Your task to perform on an android device: Add "logitech g910" to the cart on walmart.com Image 0: 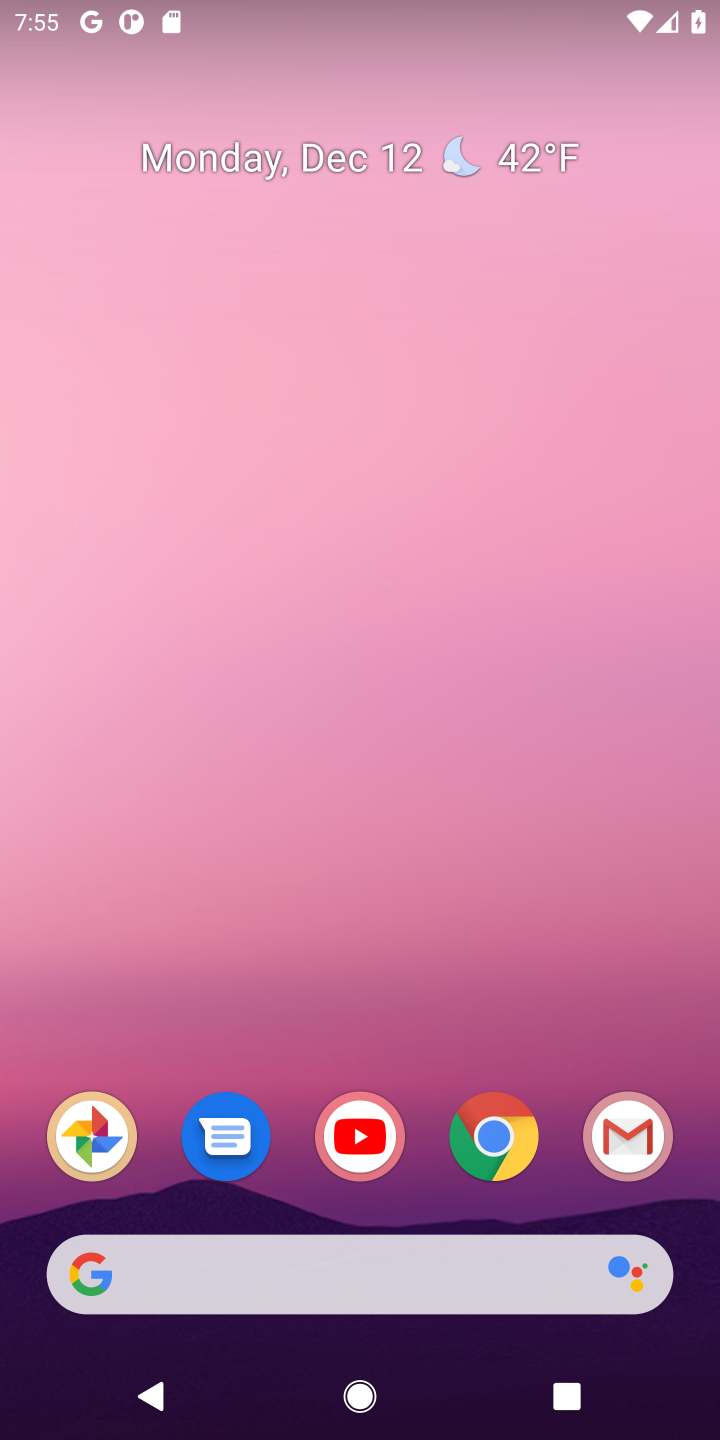
Step 0: click (488, 1150)
Your task to perform on an android device: Add "logitech g910" to the cart on walmart.com Image 1: 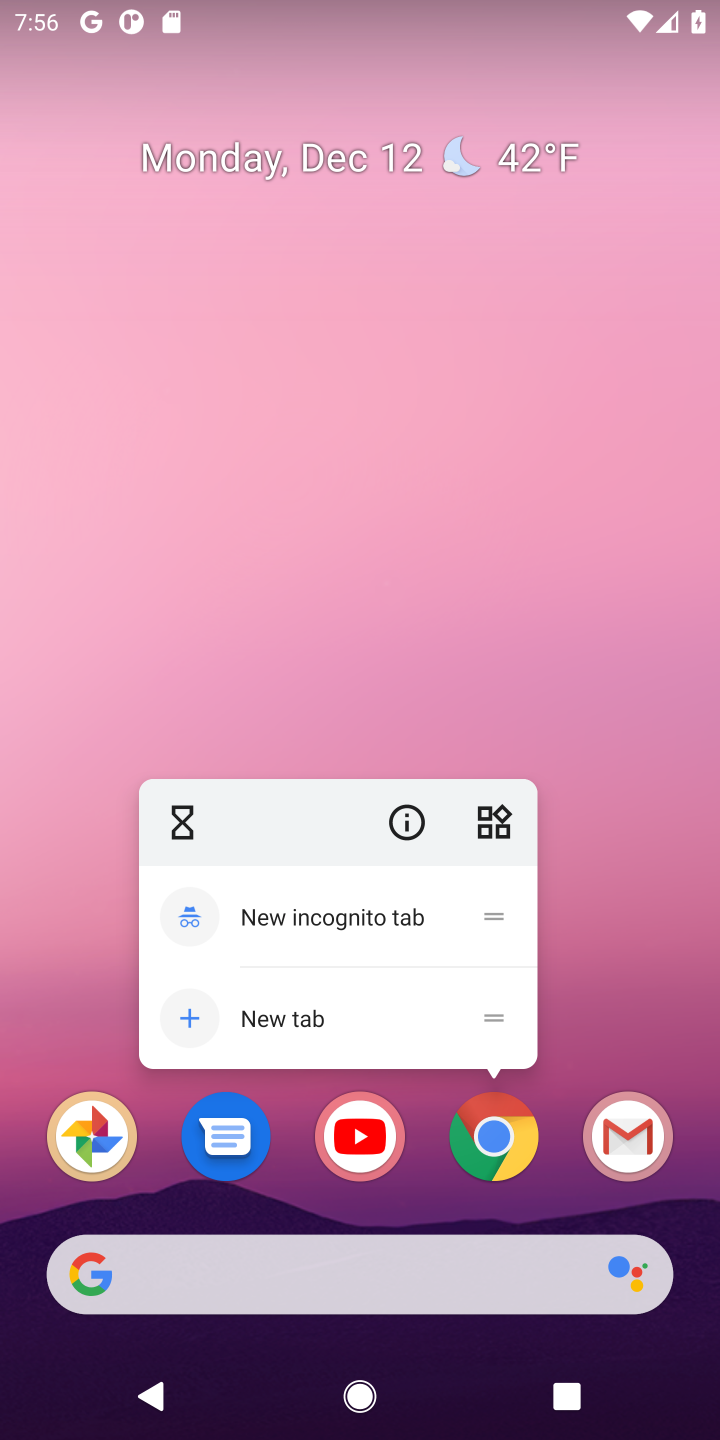
Step 1: click (498, 1138)
Your task to perform on an android device: Add "logitech g910" to the cart on walmart.com Image 2: 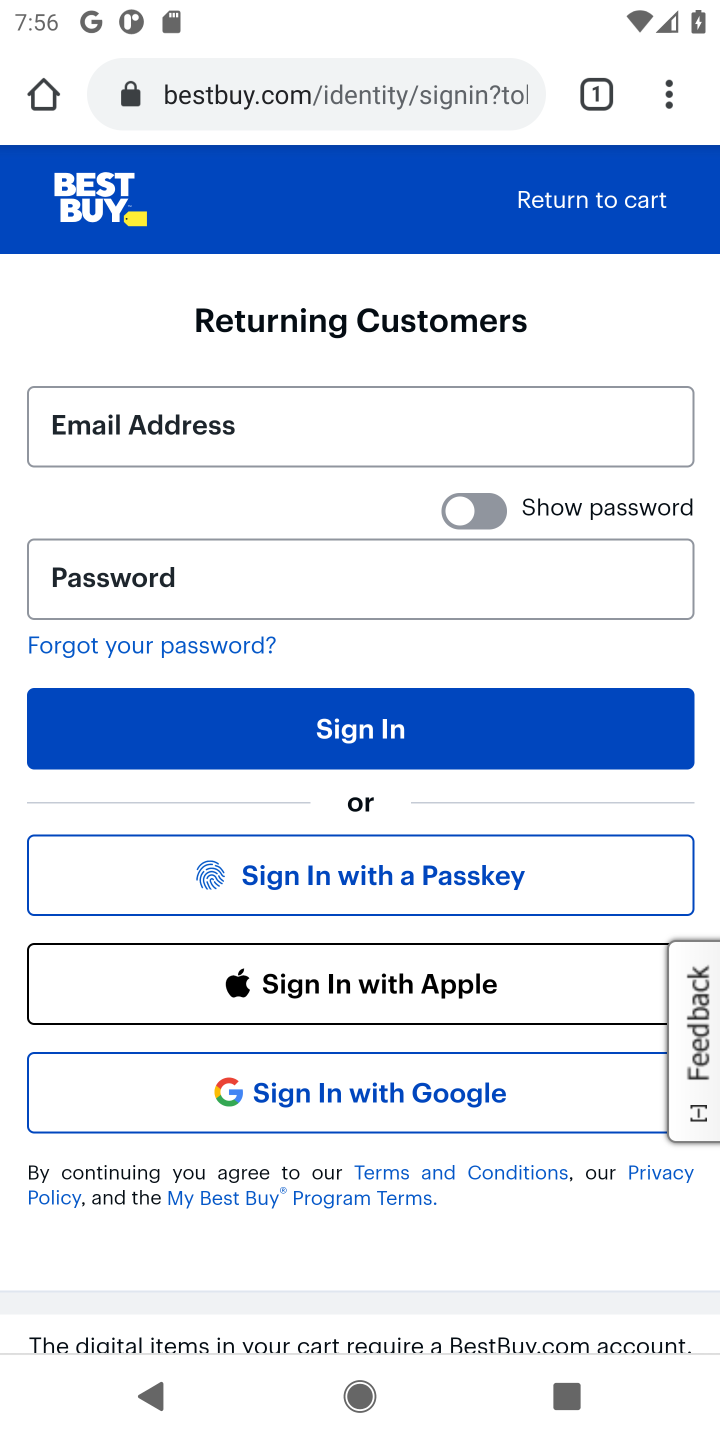
Step 2: click (291, 99)
Your task to perform on an android device: Add "logitech g910" to the cart on walmart.com Image 3: 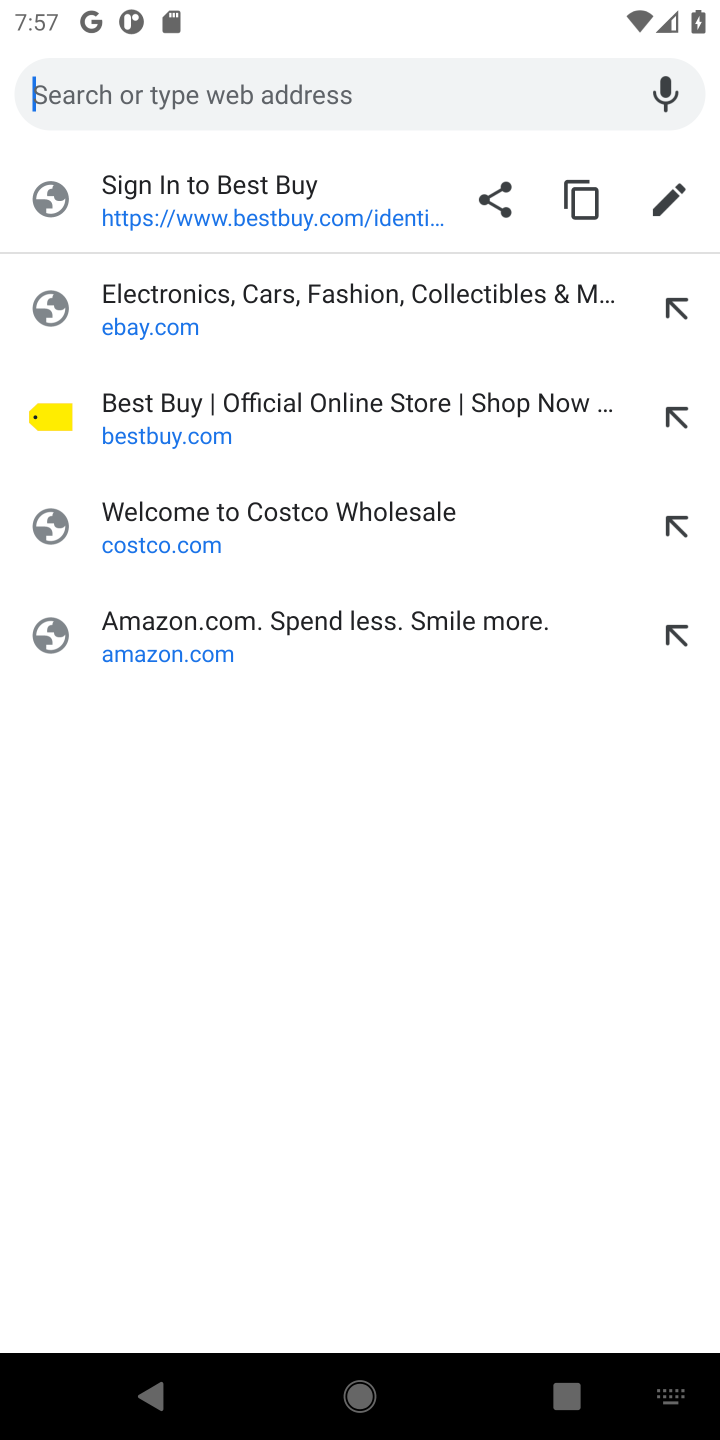
Step 3: type "walmart.com"
Your task to perform on an android device: Add "logitech g910" to the cart on walmart.com Image 4: 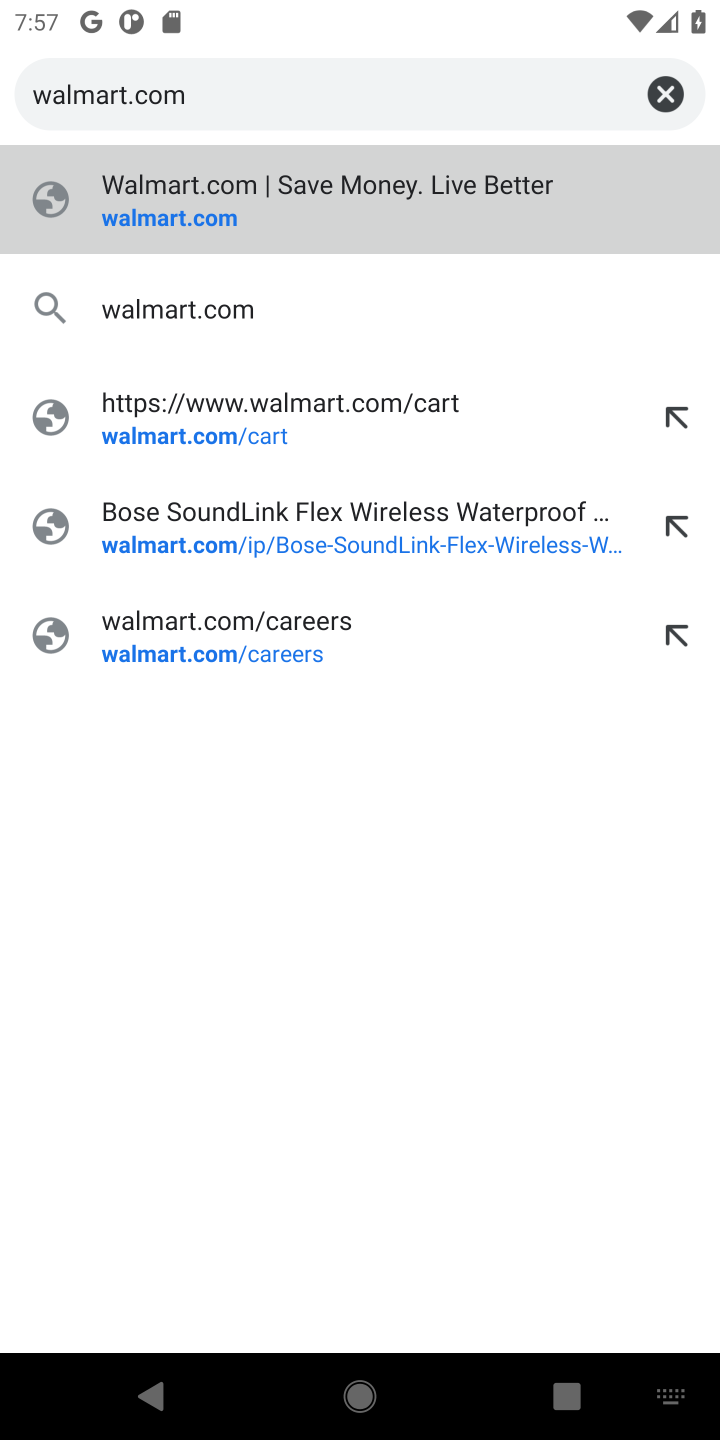
Step 4: click (151, 231)
Your task to perform on an android device: Add "logitech g910" to the cart on walmart.com Image 5: 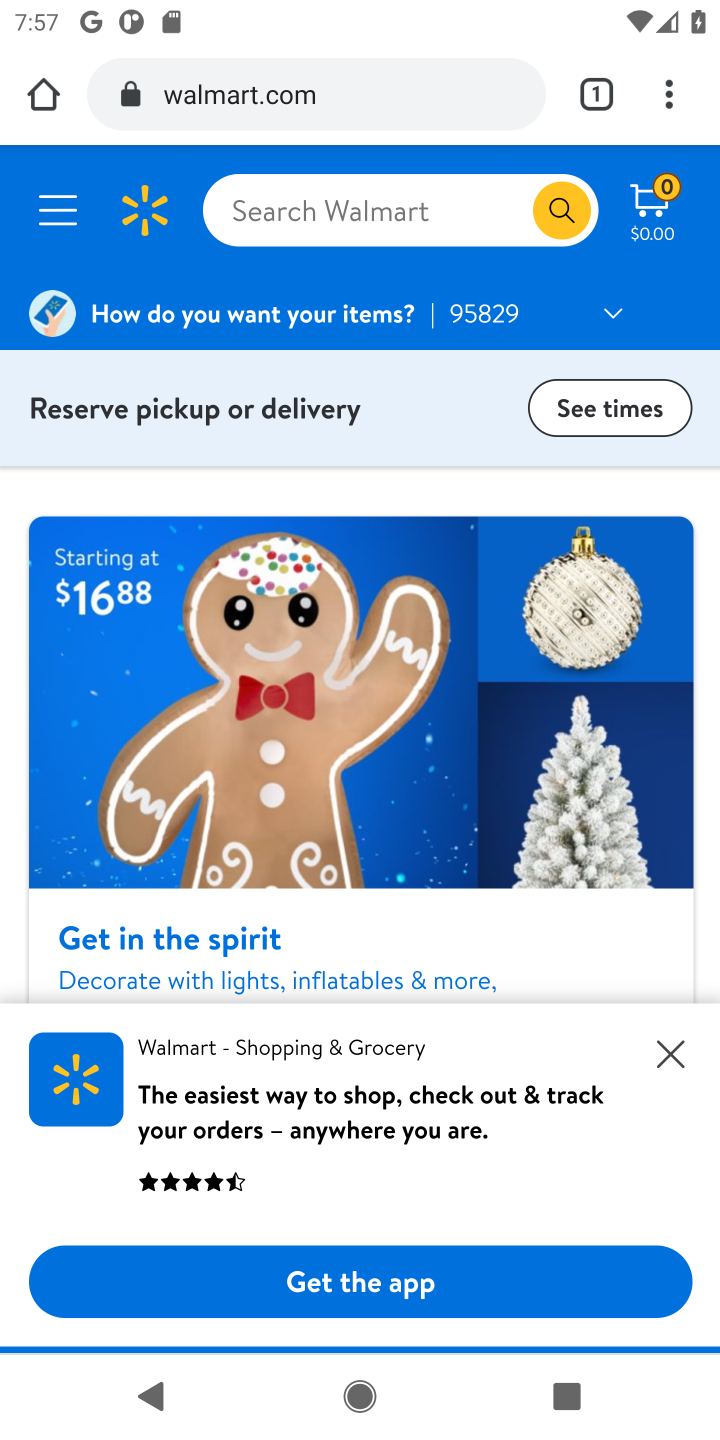
Step 5: click (302, 229)
Your task to perform on an android device: Add "logitech g910" to the cart on walmart.com Image 6: 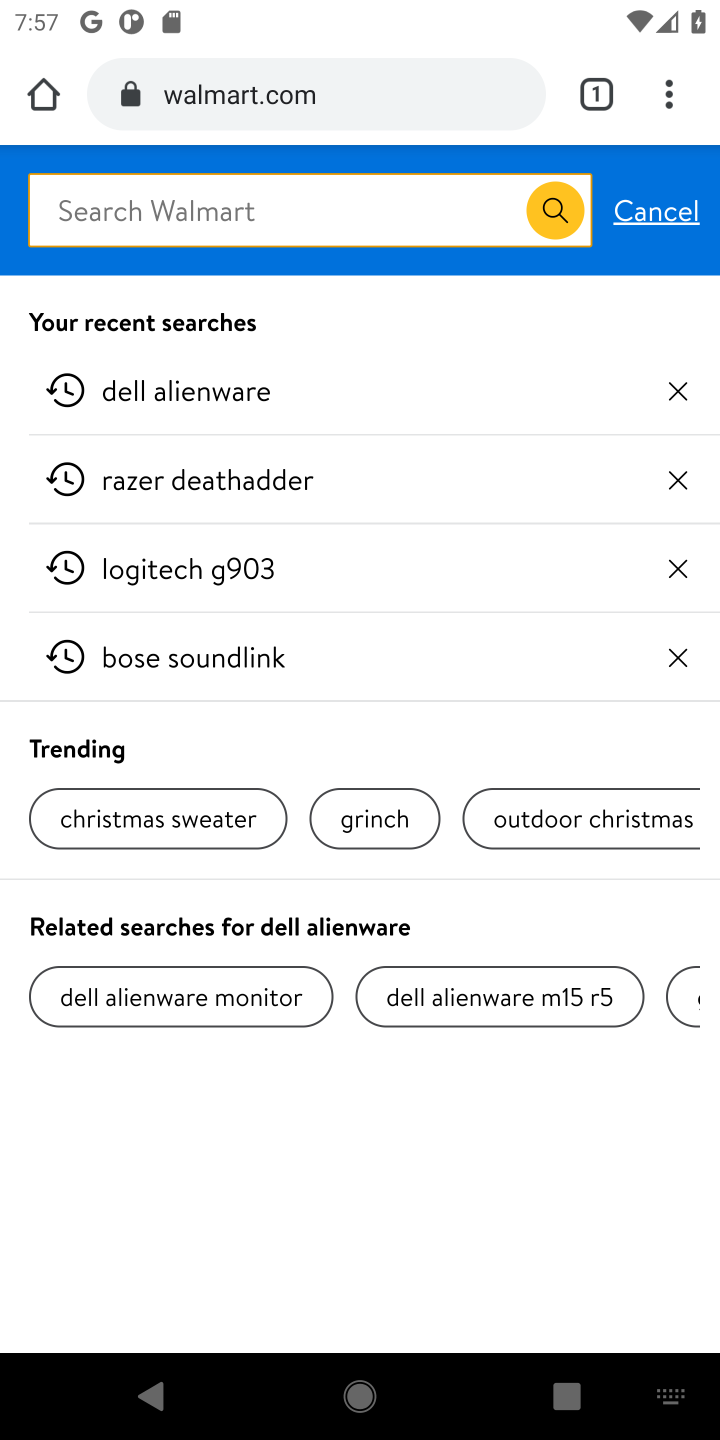
Step 6: type "logitech g910"
Your task to perform on an android device: Add "logitech g910" to the cart on walmart.com Image 7: 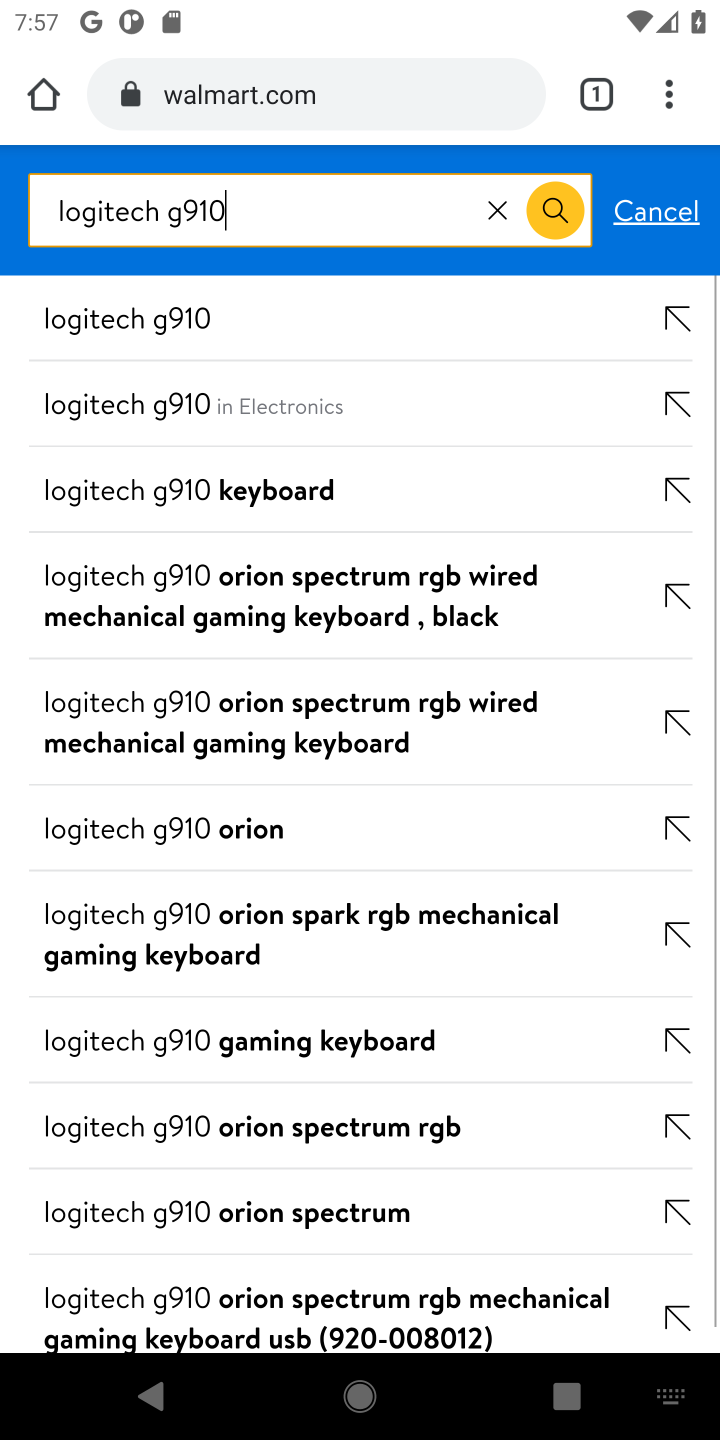
Step 7: click (102, 332)
Your task to perform on an android device: Add "logitech g910" to the cart on walmart.com Image 8: 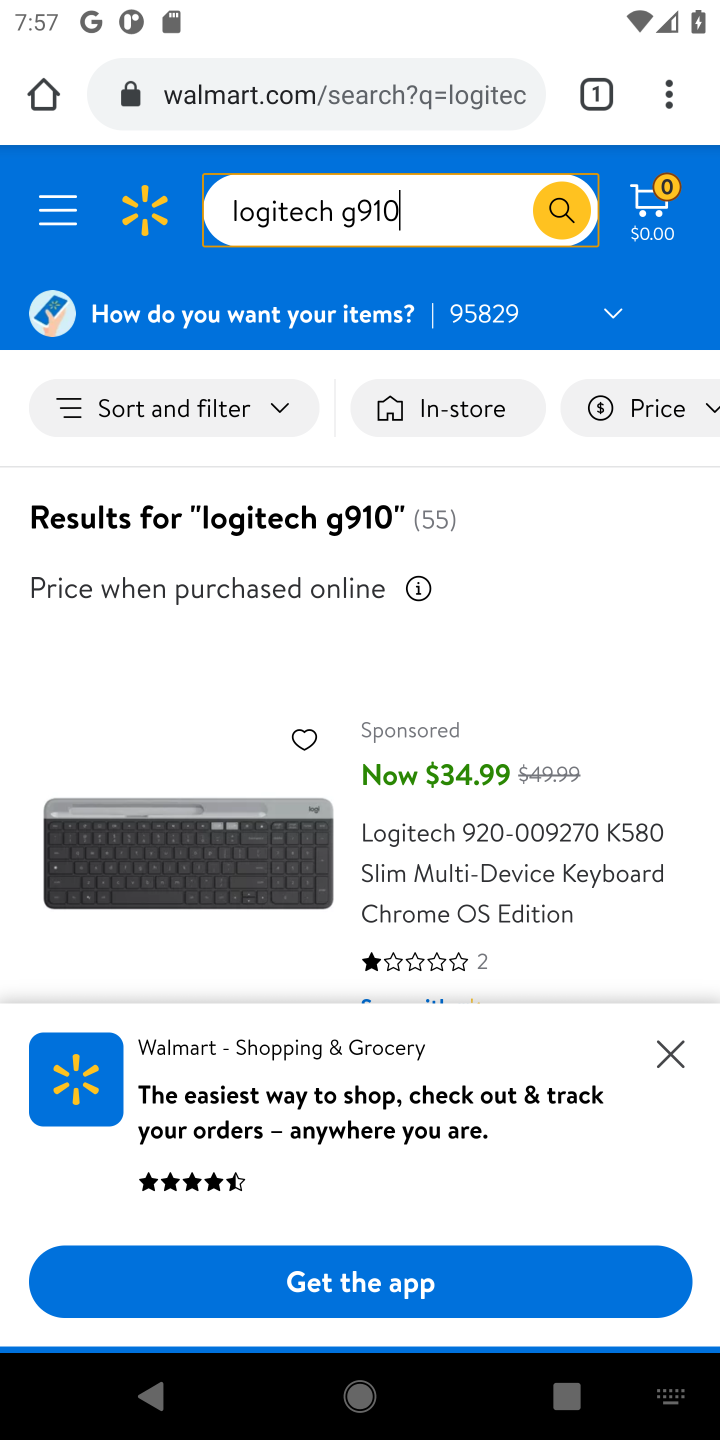
Step 8: drag from (403, 873) to (414, 380)
Your task to perform on an android device: Add "logitech g910" to the cart on walmart.com Image 9: 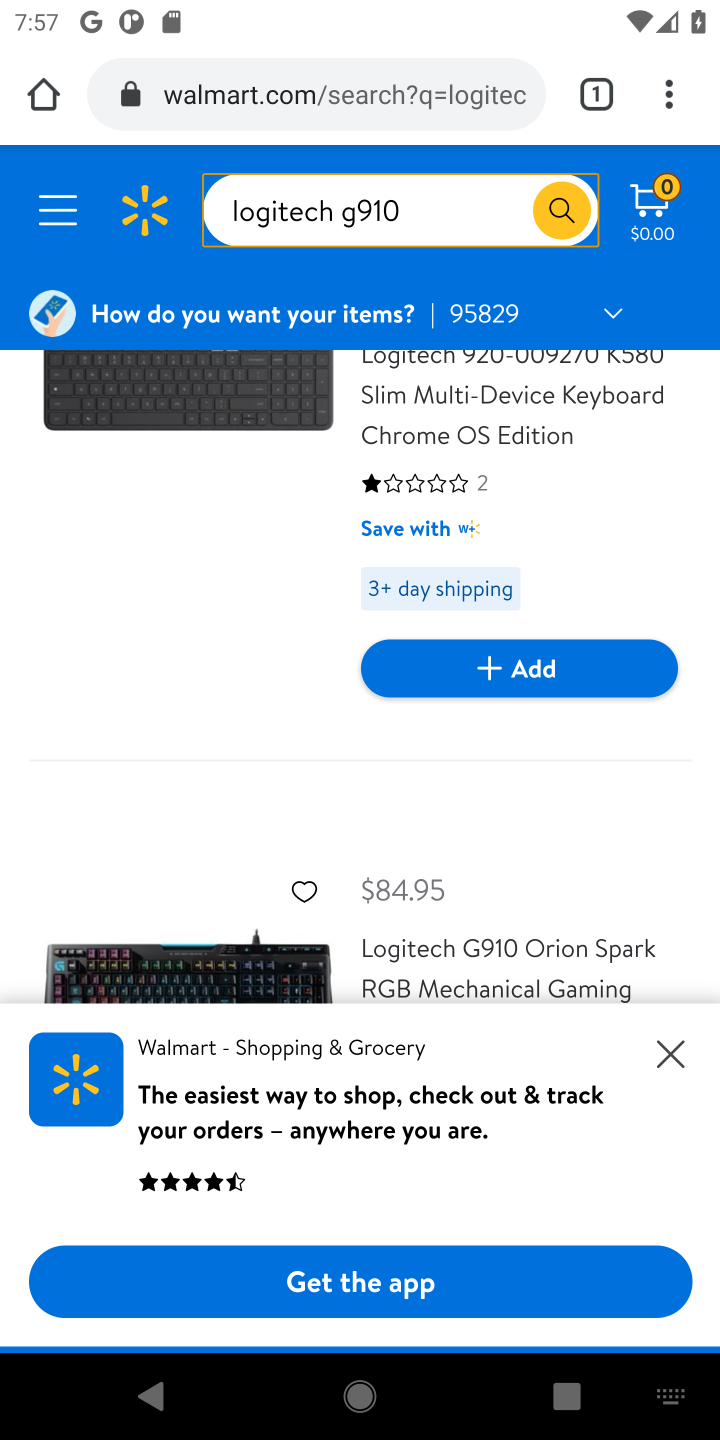
Step 9: drag from (338, 840) to (370, 447)
Your task to perform on an android device: Add "logitech g910" to the cart on walmart.com Image 10: 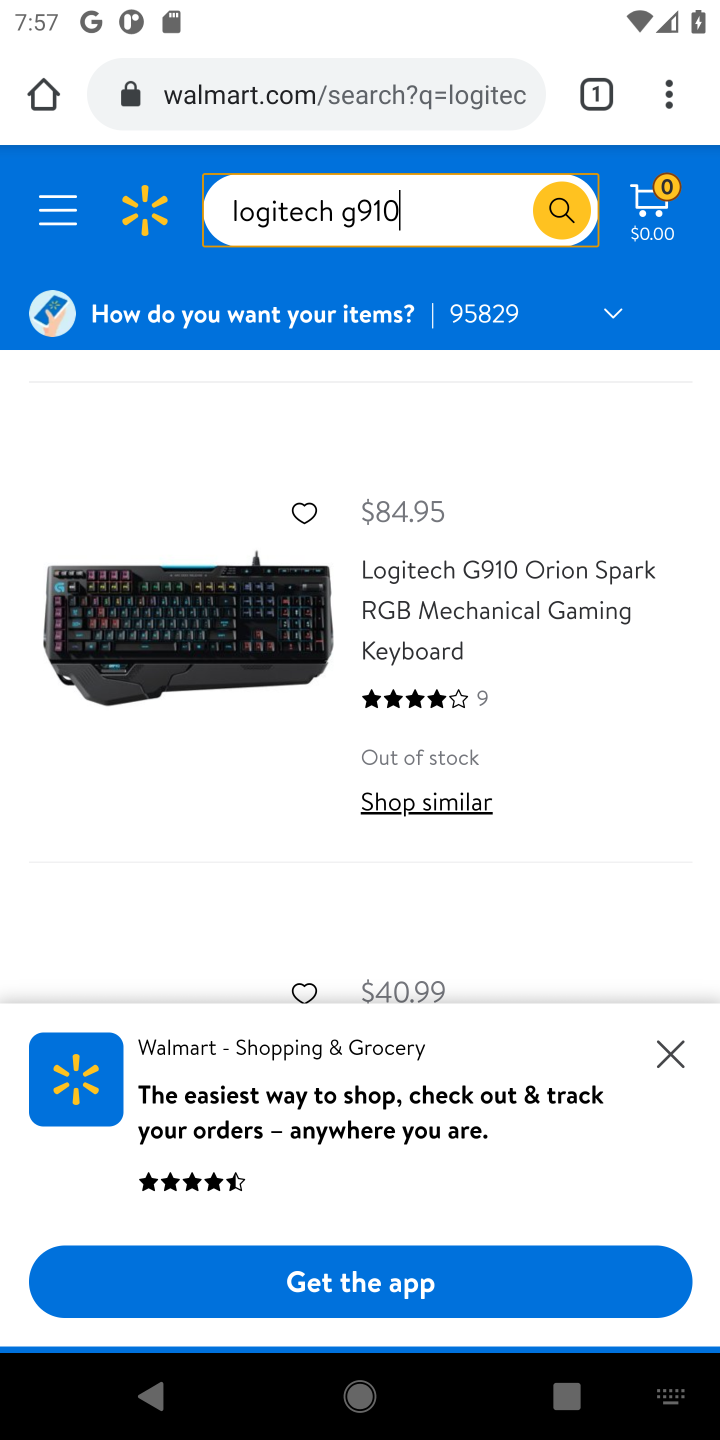
Step 10: drag from (273, 820) to (282, 374)
Your task to perform on an android device: Add "logitech g910" to the cart on walmart.com Image 11: 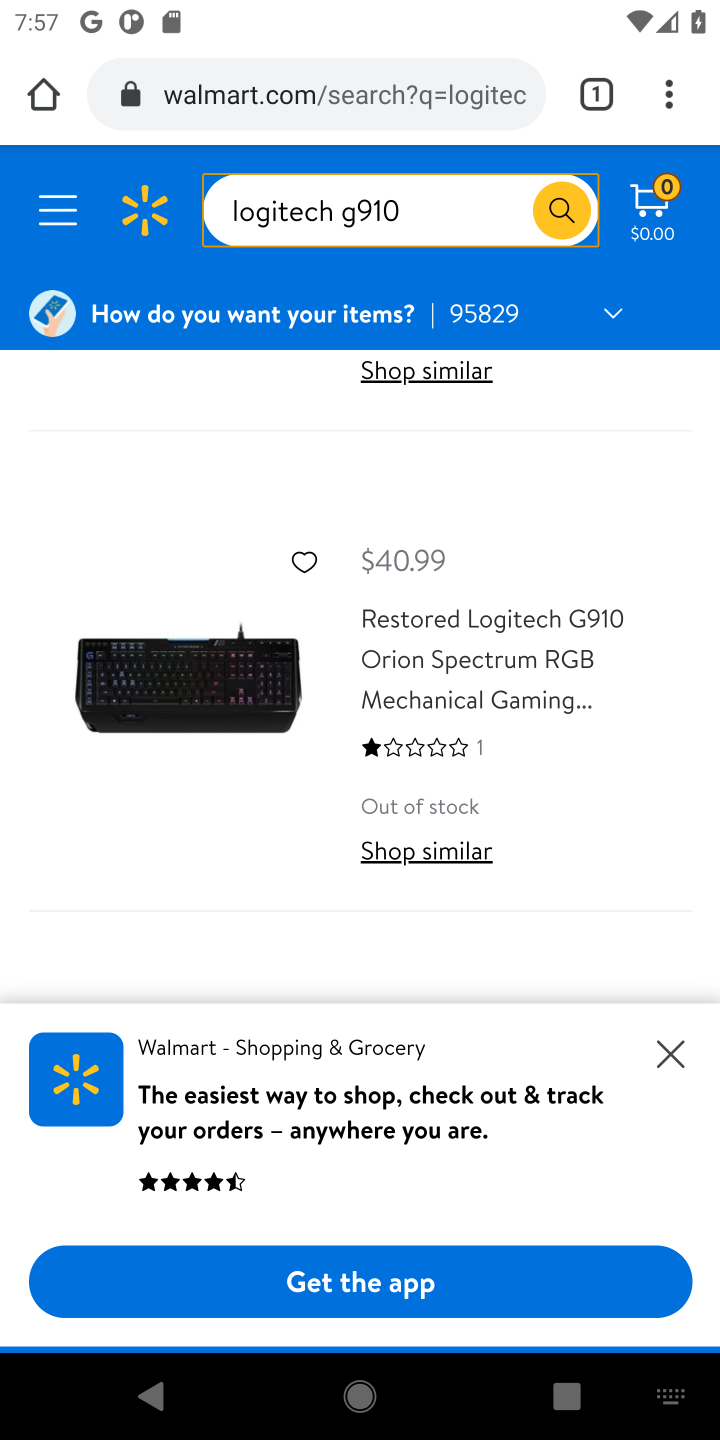
Step 11: drag from (257, 604) to (257, 382)
Your task to perform on an android device: Add "logitech g910" to the cart on walmart.com Image 12: 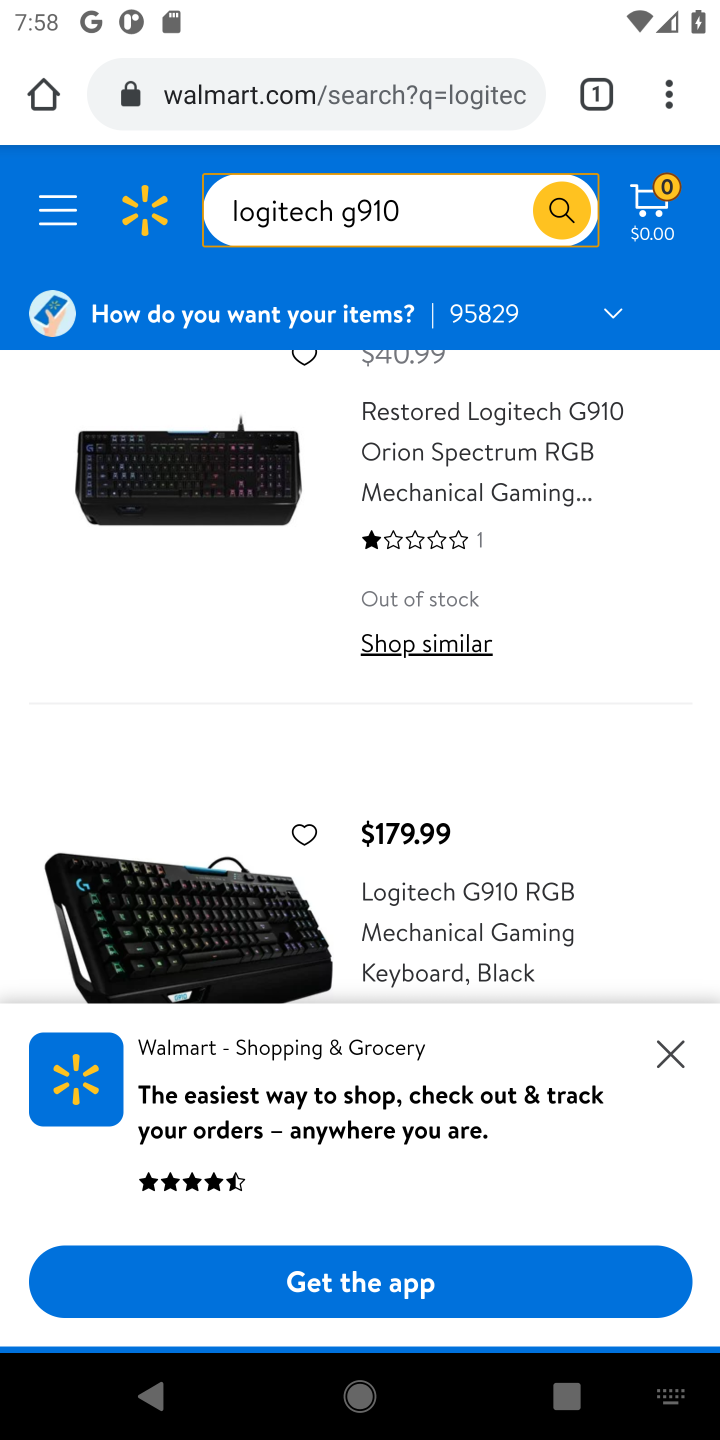
Step 12: drag from (235, 780) to (213, 325)
Your task to perform on an android device: Add "logitech g910" to the cart on walmart.com Image 13: 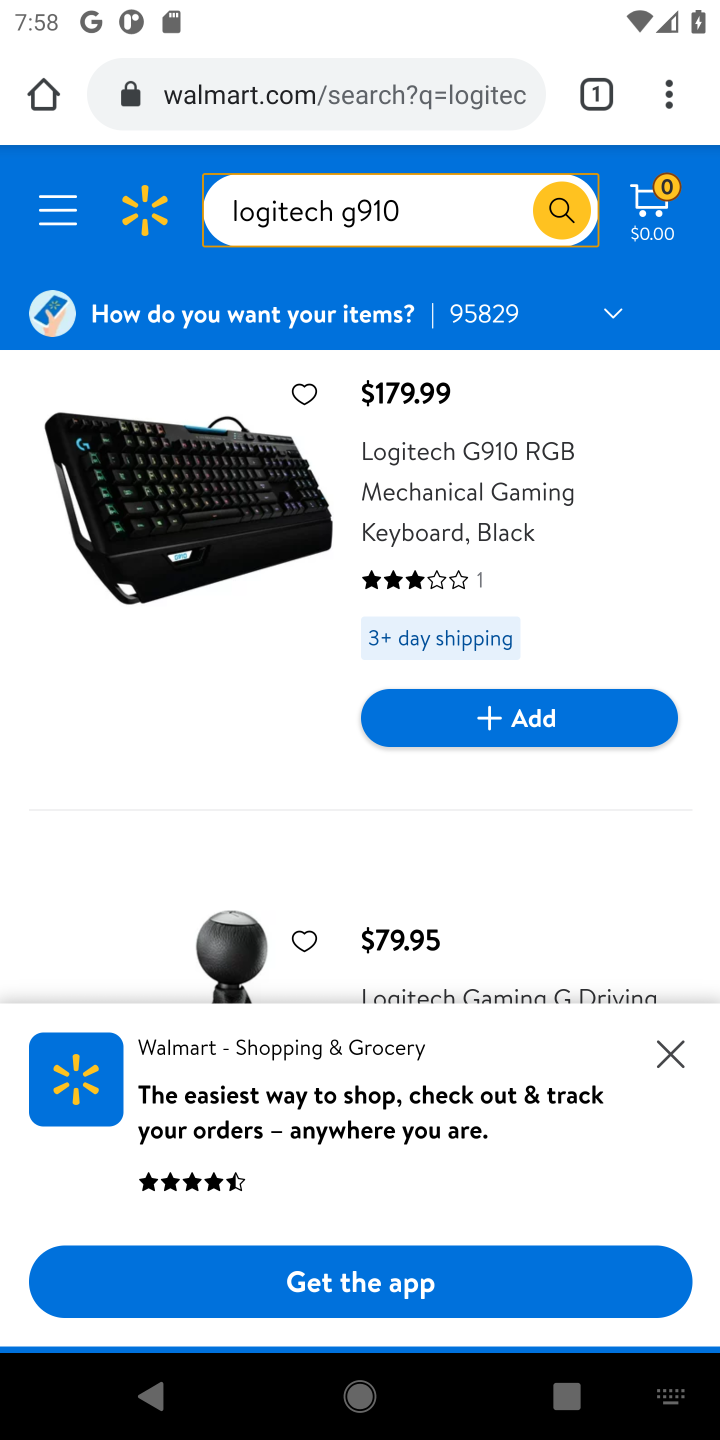
Step 13: click (465, 726)
Your task to perform on an android device: Add "logitech g910" to the cart on walmart.com Image 14: 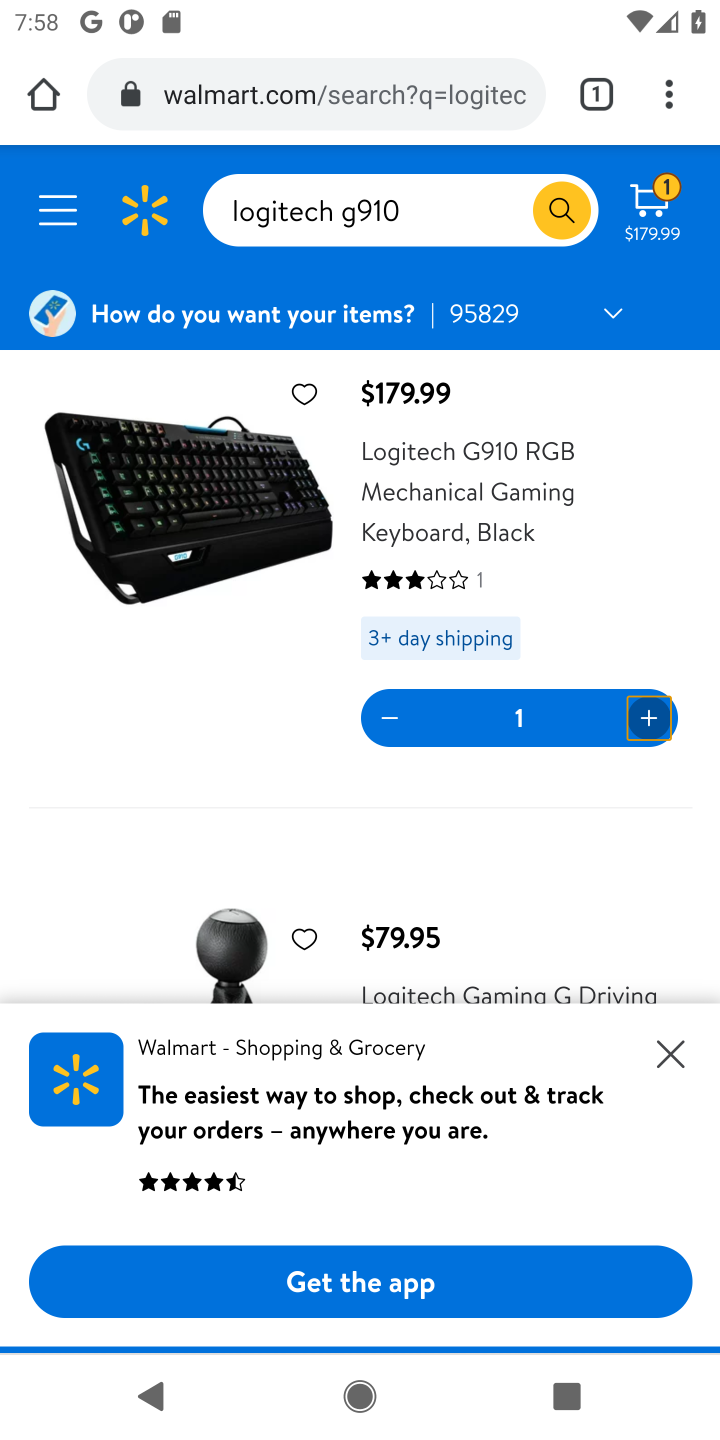
Step 14: task complete